Your task to perform on an android device: Open Google Image 0: 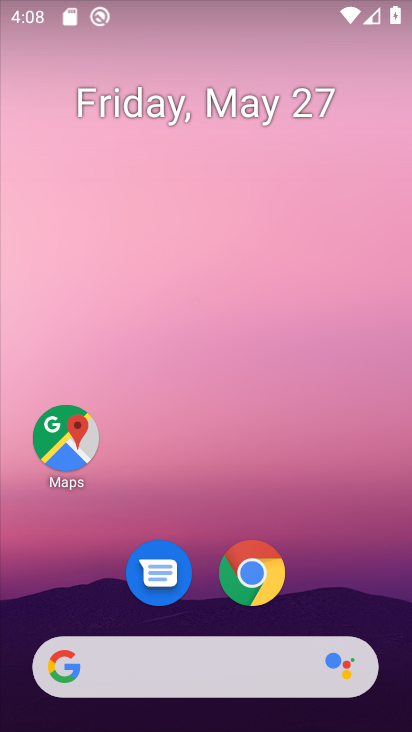
Step 0: click (278, 672)
Your task to perform on an android device: Open Google Image 1: 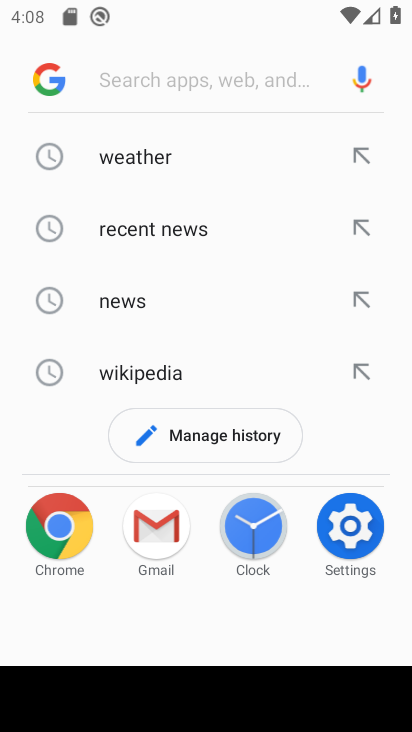
Step 1: click (54, 88)
Your task to perform on an android device: Open Google Image 2: 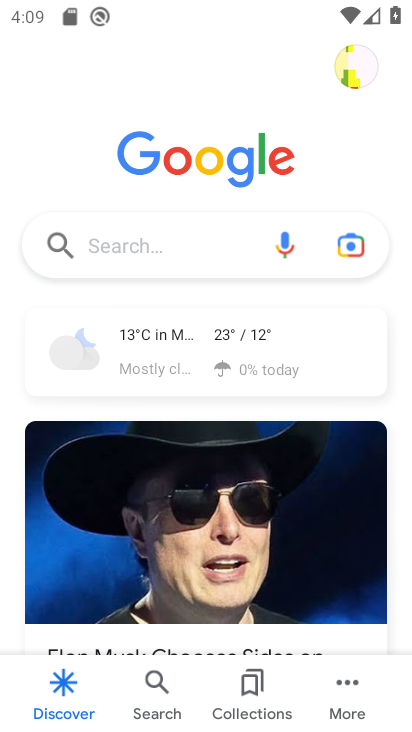
Step 2: task complete